Your task to perform on an android device: toggle notifications settings in the gmail app Image 0: 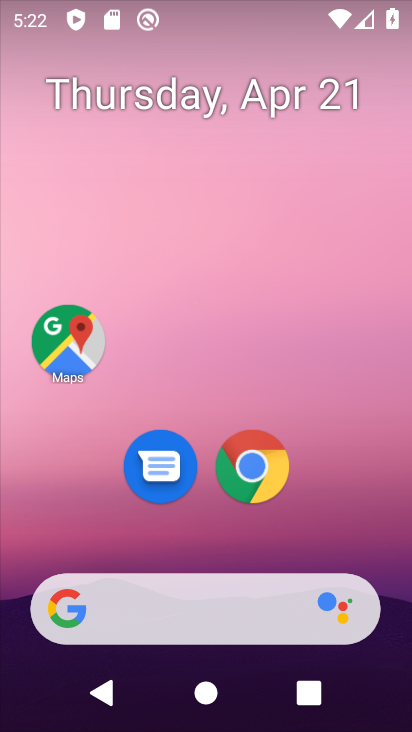
Step 0: drag from (382, 206) to (380, 150)
Your task to perform on an android device: toggle notifications settings in the gmail app Image 1: 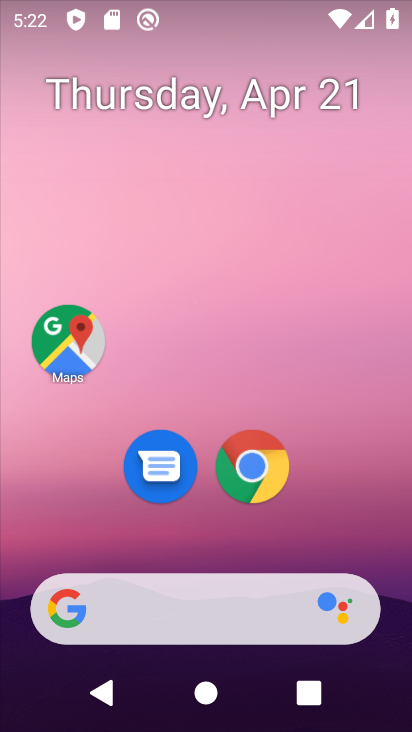
Step 1: drag from (398, 585) to (378, 275)
Your task to perform on an android device: toggle notifications settings in the gmail app Image 2: 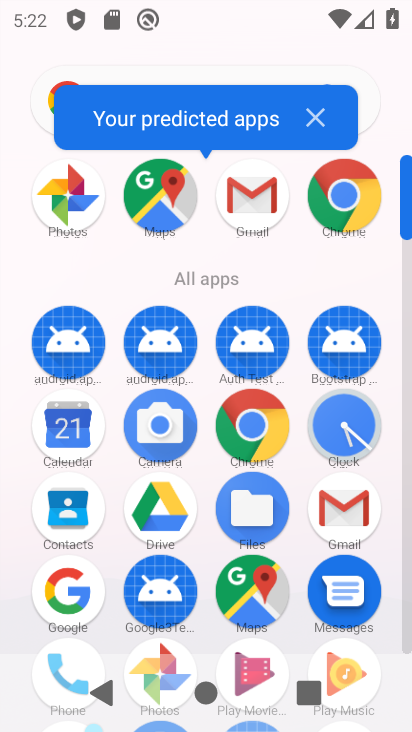
Step 2: click (336, 503)
Your task to perform on an android device: toggle notifications settings in the gmail app Image 3: 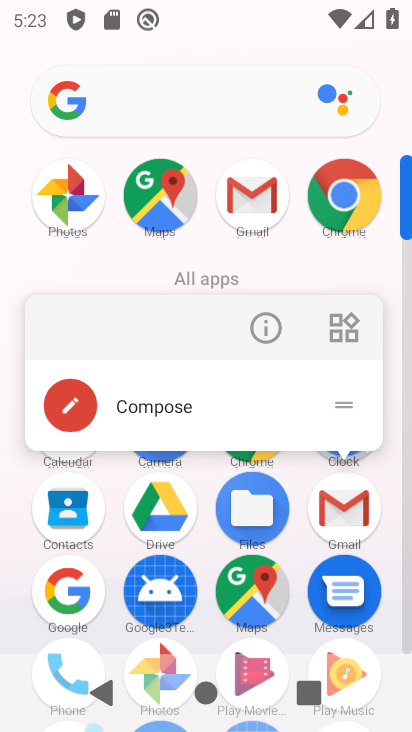
Step 3: click (336, 503)
Your task to perform on an android device: toggle notifications settings in the gmail app Image 4: 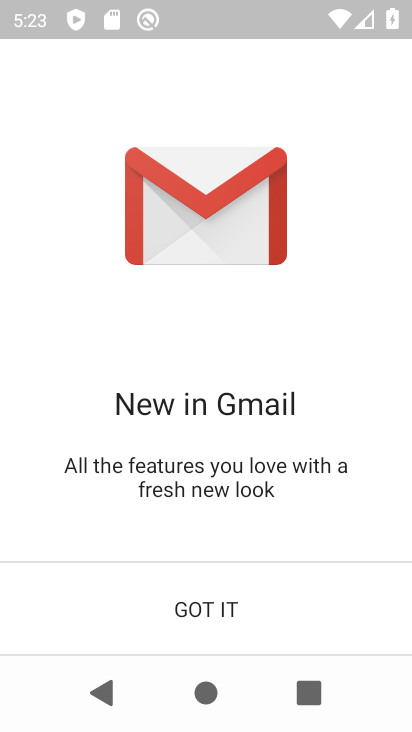
Step 4: click (193, 610)
Your task to perform on an android device: toggle notifications settings in the gmail app Image 5: 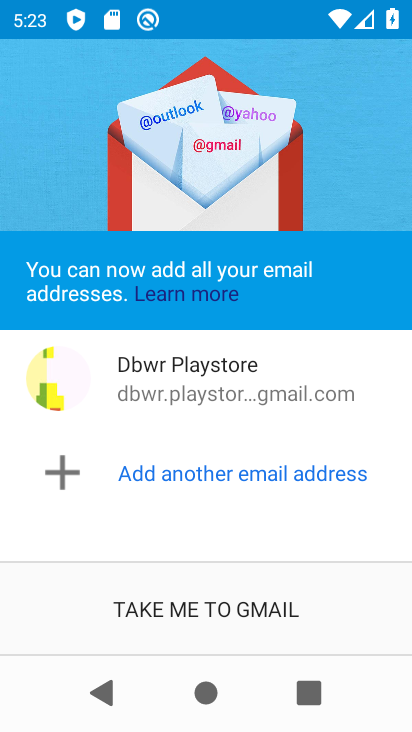
Step 5: click (197, 610)
Your task to perform on an android device: toggle notifications settings in the gmail app Image 6: 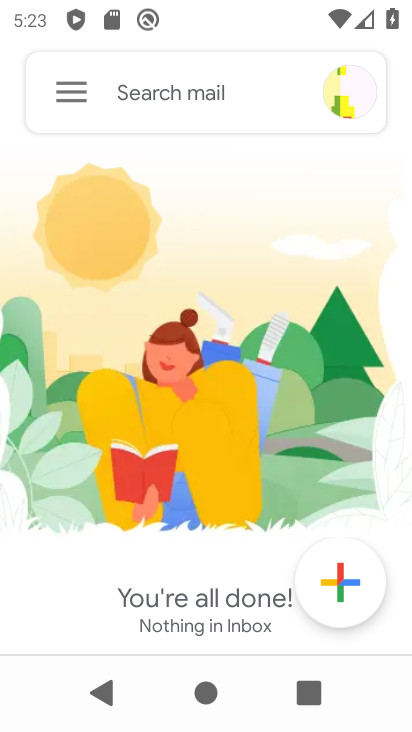
Step 6: click (67, 86)
Your task to perform on an android device: toggle notifications settings in the gmail app Image 7: 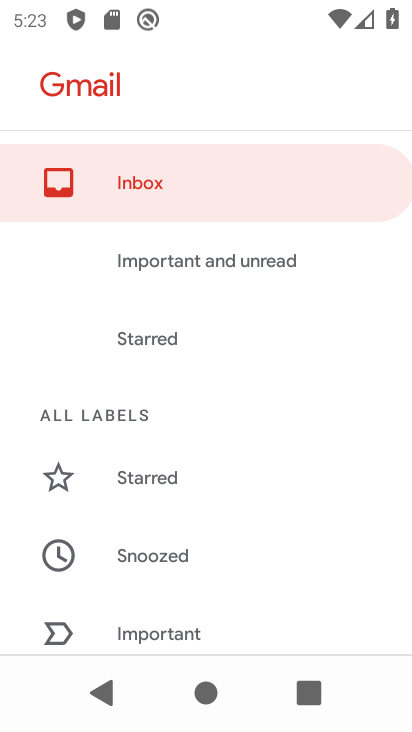
Step 7: drag from (284, 612) to (280, 330)
Your task to perform on an android device: toggle notifications settings in the gmail app Image 8: 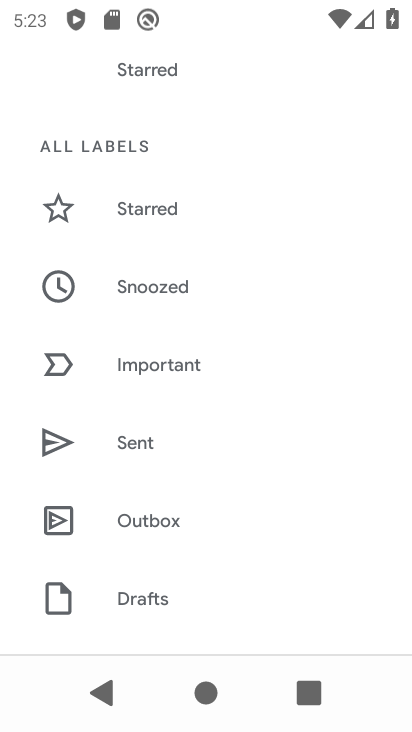
Step 8: drag from (280, 556) to (304, 353)
Your task to perform on an android device: toggle notifications settings in the gmail app Image 9: 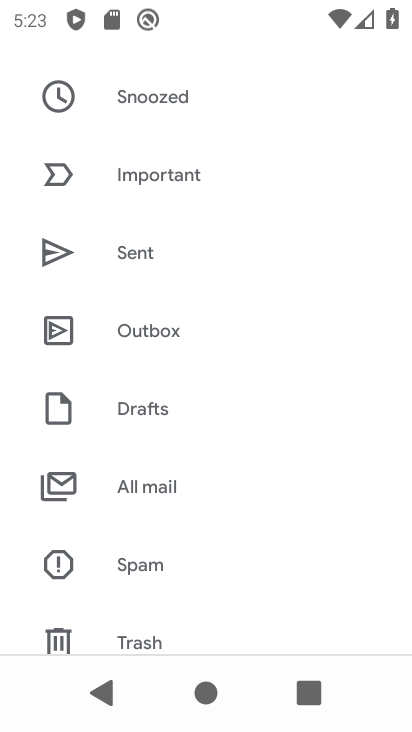
Step 9: drag from (310, 343) to (313, 234)
Your task to perform on an android device: toggle notifications settings in the gmail app Image 10: 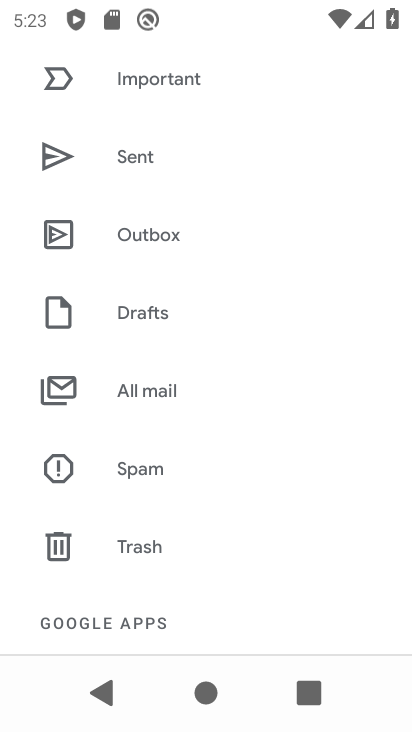
Step 10: drag from (310, 569) to (339, 236)
Your task to perform on an android device: toggle notifications settings in the gmail app Image 11: 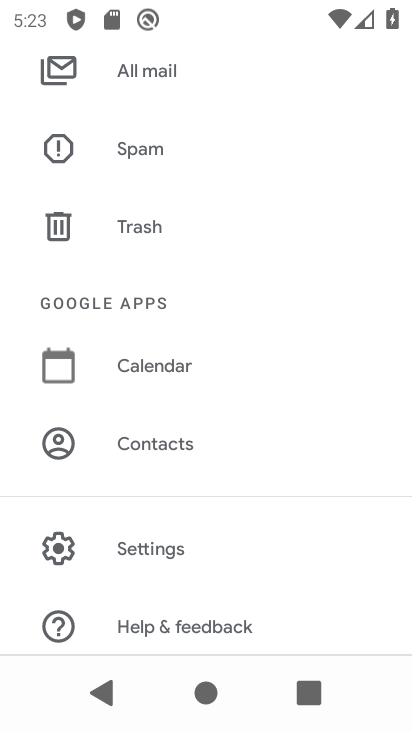
Step 11: click (133, 545)
Your task to perform on an android device: toggle notifications settings in the gmail app Image 12: 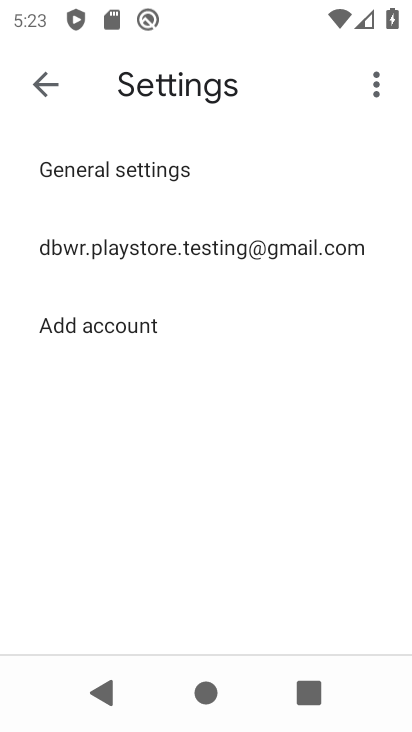
Step 12: click (82, 172)
Your task to perform on an android device: toggle notifications settings in the gmail app Image 13: 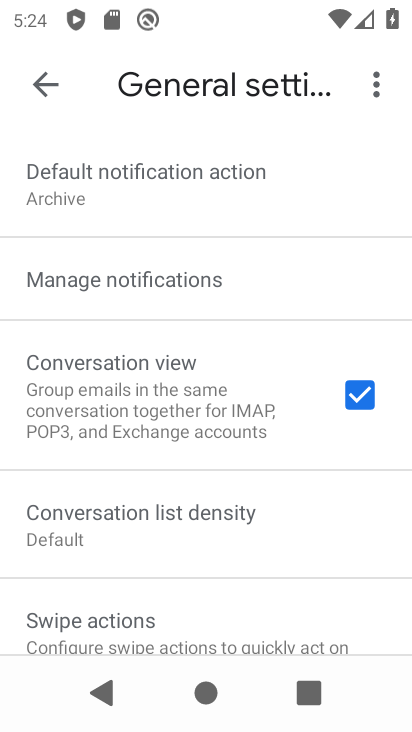
Step 13: click (115, 279)
Your task to perform on an android device: toggle notifications settings in the gmail app Image 14: 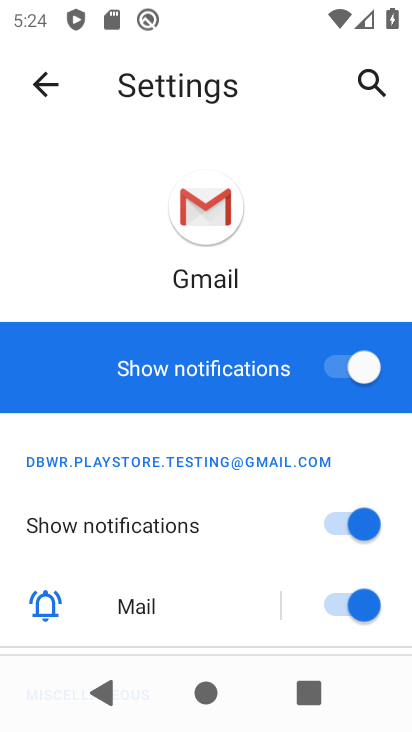
Step 14: click (335, 363)
Your task to perform on an android device: toggle notifications settings in the gmail app Image 15: 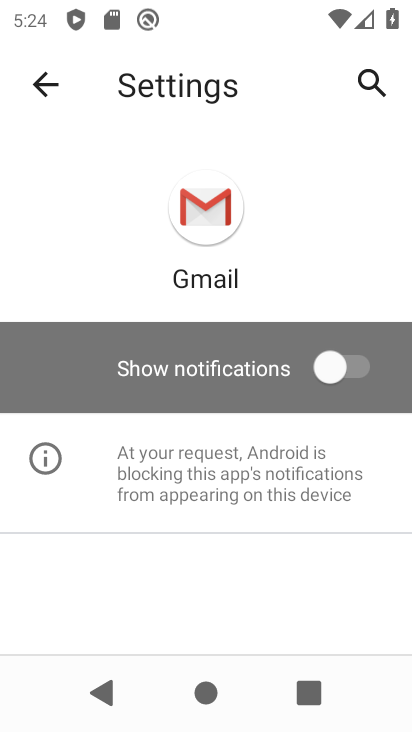
Step 15: task complete